Your task to perform on an android device: Search for "apple airpods pro" on walmart.com, select the first entry, and add it to the cart. Image 0: 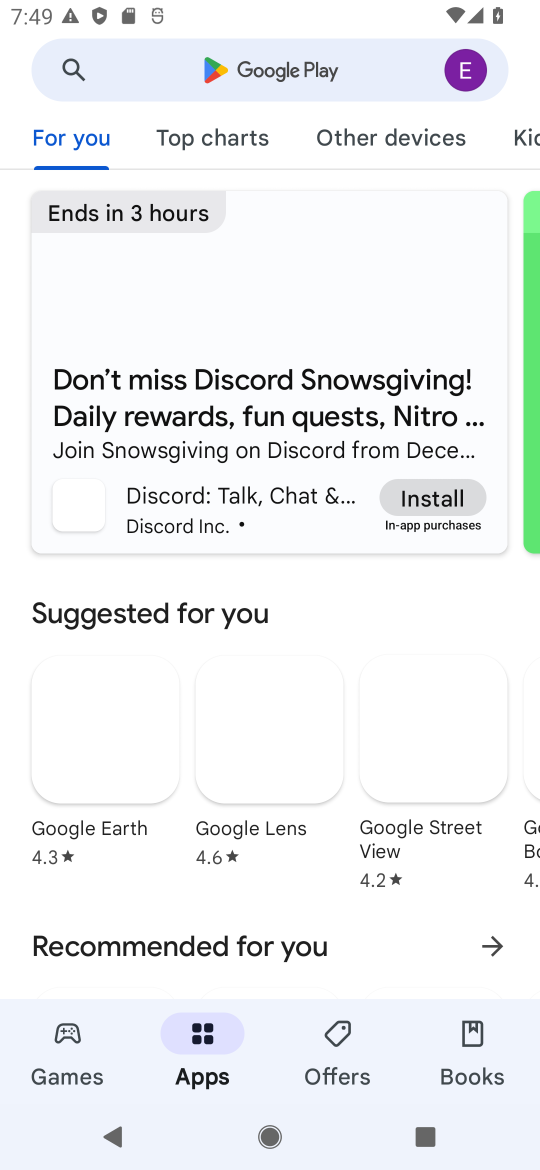
Step 0: press home button
Your task to perform on an android device: Search for "apple airpods pro" on walmart.com, select the first entry, and add it to the cart. Image 1: 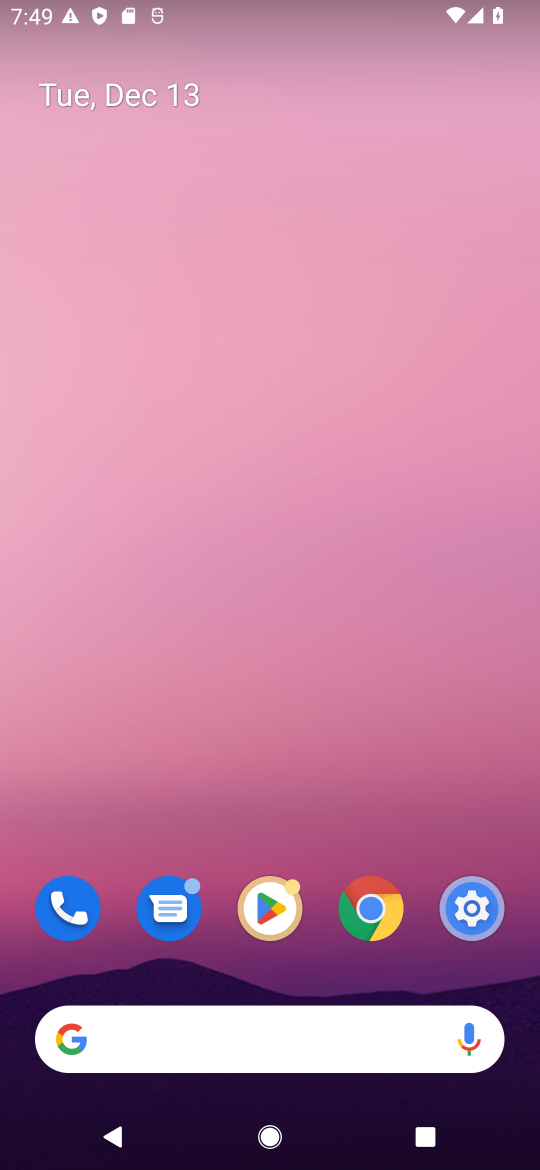
Step 1: click (99, 1029)
Your task to perform on an android device: Search for "apple airpods pro" on walmart.com, select the first entry, and add it to the cart. Image 2: 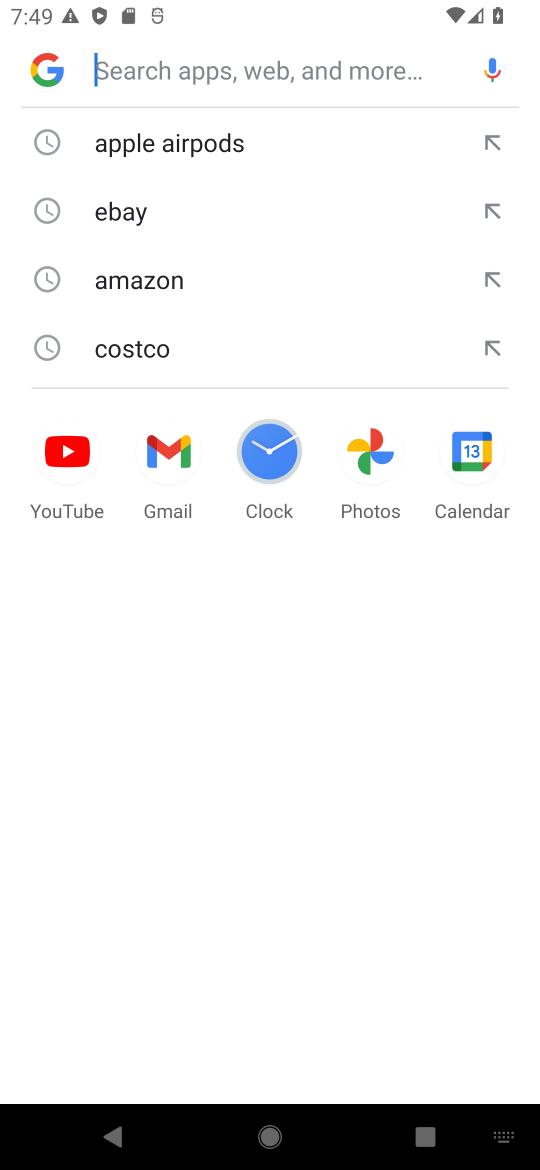
Step 2: type "walmart.com"
Your task to perform on an android device: Search for "apple airpods pro" on walmart.com, select the first entry, and add it to the cart. Image 3: 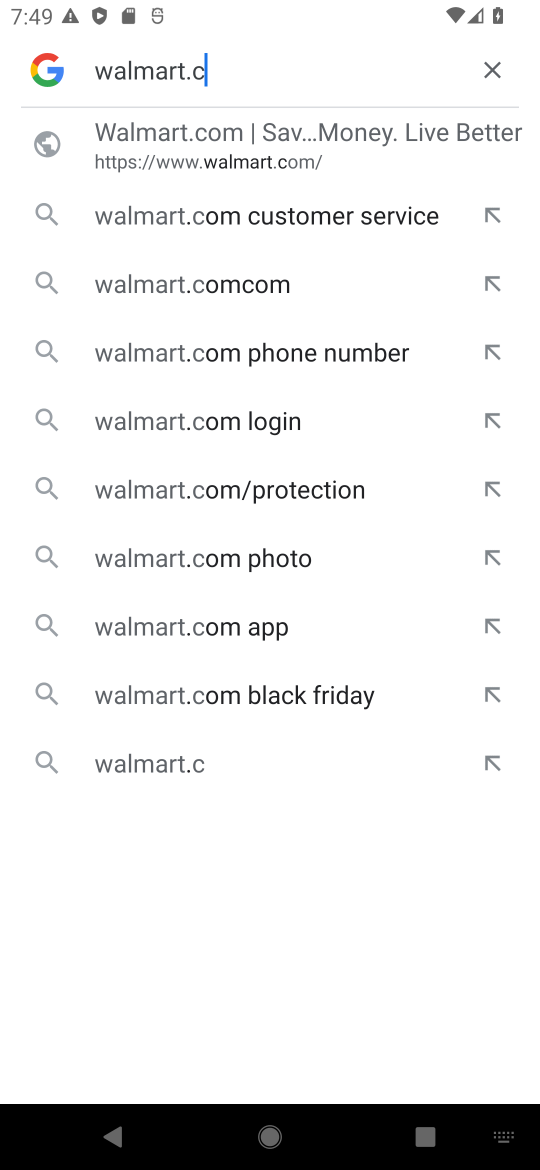
Step 3: press enter
Your task to perform on an android device: Search for "apple airpods pro" on walmart.com, select the first entry, and add it to the cart. Image 4: 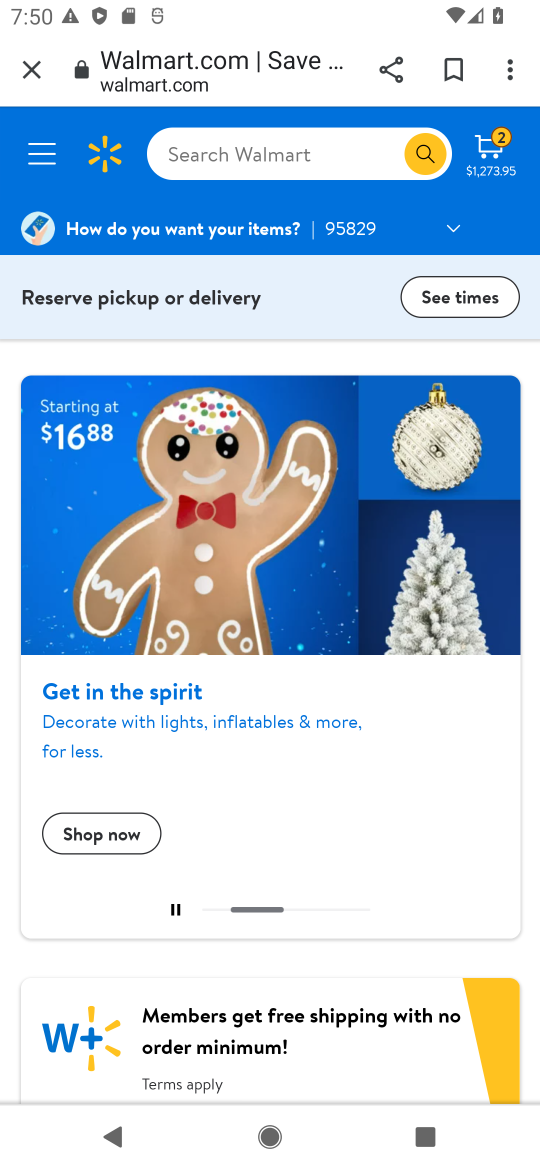
Step 4: click (166, 149)
Your task to perform on an android device: Search for "apple airpods pro" on walmart.com, select the first entry, and add it to the cart. Image 5: 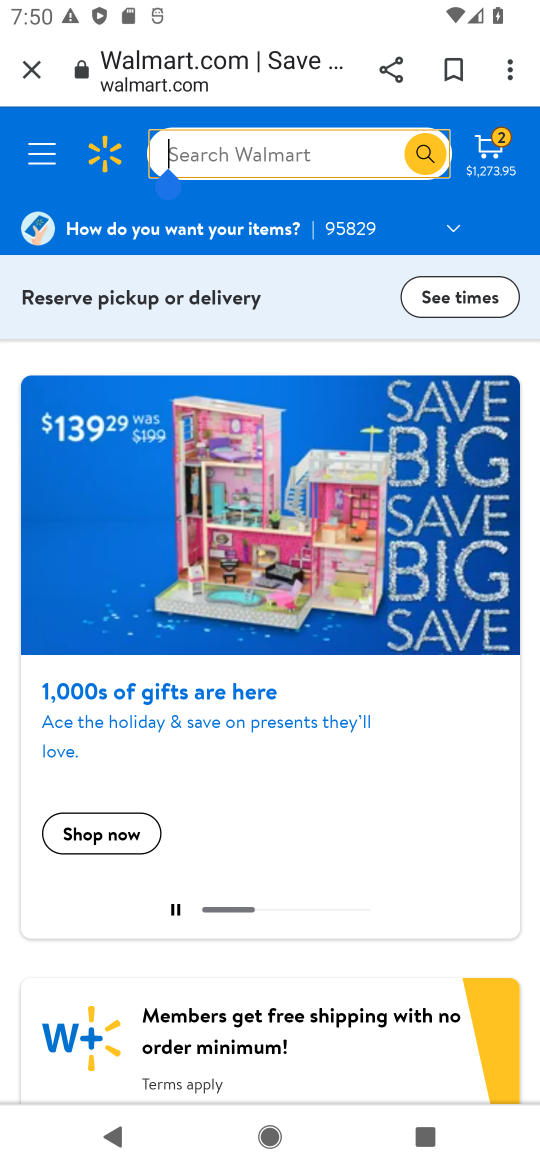
Step 5: type "apple airpods pro"
Your task to perform on an android device: Search for "apple airpods pro" on walmart.com, select the first entry, and add it to the cart. Image 6: 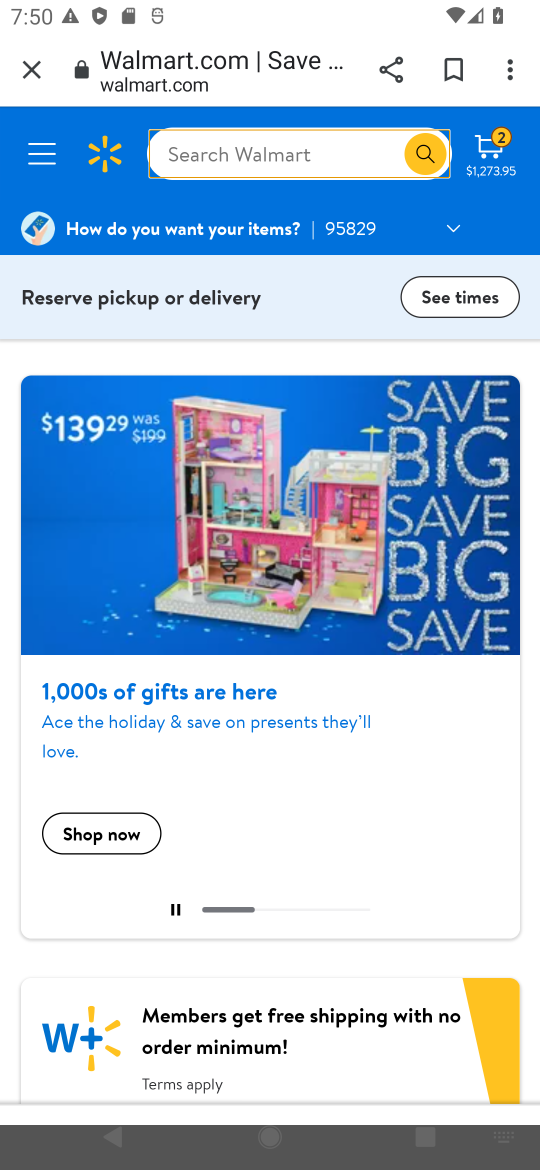
Step 6: press enter
Your task to perform on an android device: Search for "apple airpods pro" on walmart.com, select the first entry, and add it to the cart. Image 7: 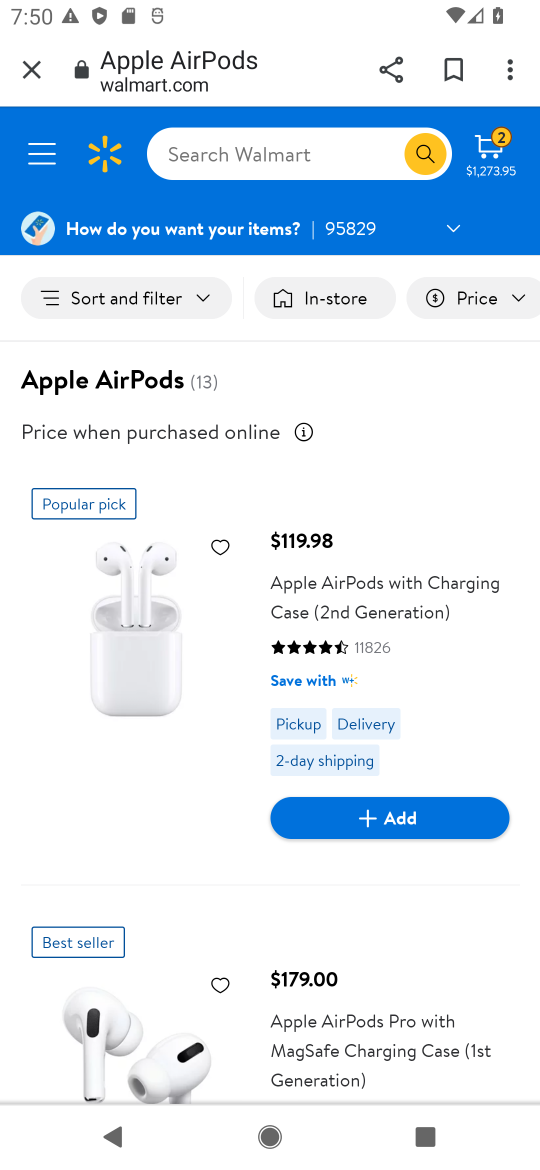
Step 7: click (395, 809)
Your task to perform on an android device: Search for "apple airpods pro" on walmart.com, select the first entry, and add it to the cart. Image 8: 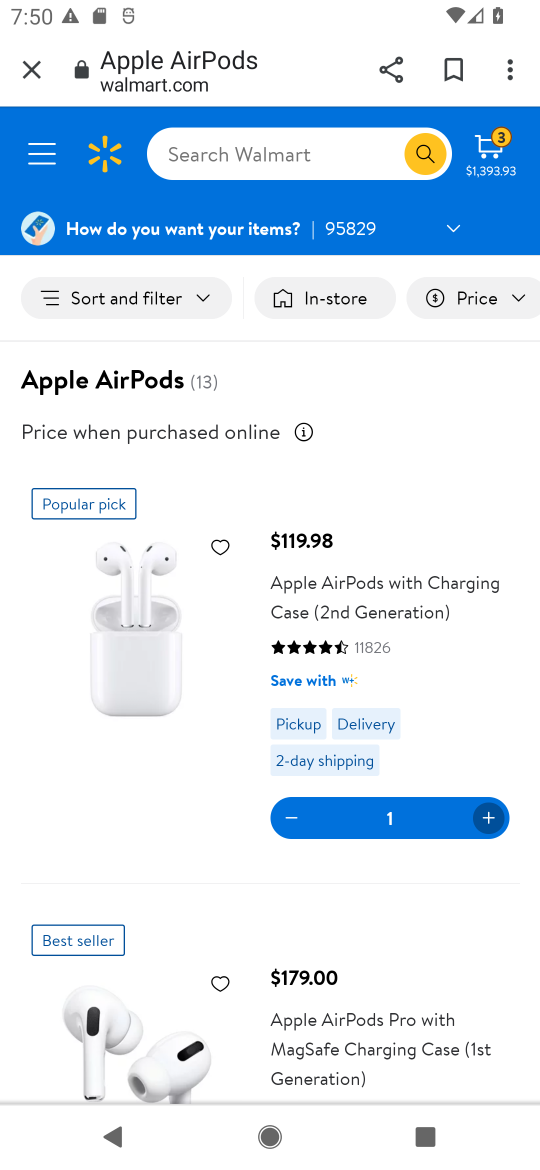
Step 8: task complete